Your task to perform on an android device: Open display settings Image 0: 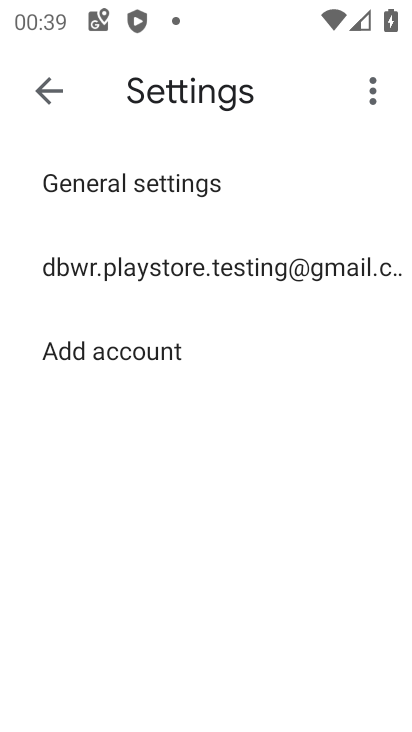
Step 0: press home button
Your task to perform on an android device: Open display settings Image 1: 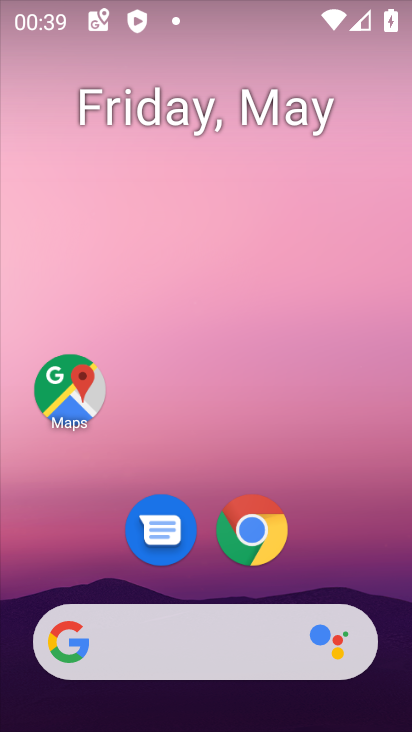
Step 1: drag from (334, 563) to (299, 159)
Your task to perform on an android device: Open display settings Image 2: 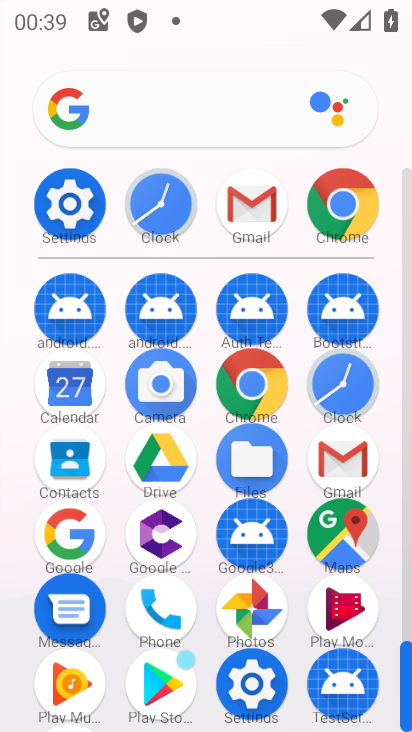
Step 2: click (73, 205)
Your task to perform on an android device: Open display settings Image 3: 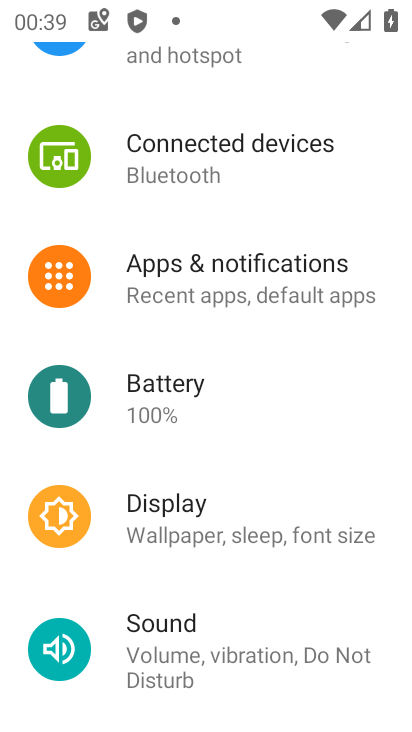
Step 3: click (204, 527)
Your task to perform on an android device: Open display settings Image 4: 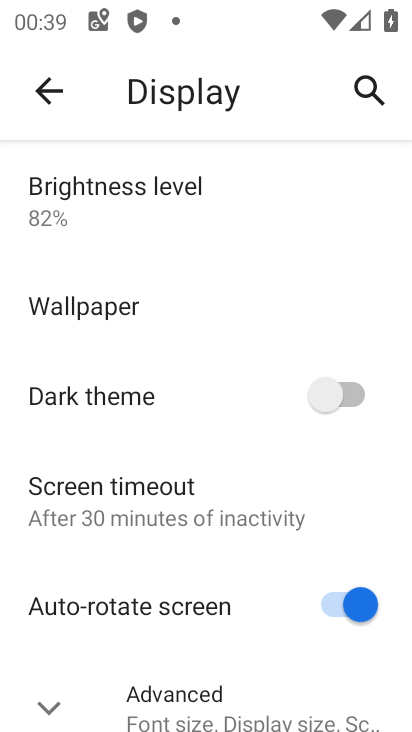
Step 4: task complete